Your task to perform on an android device: Empty the shopping cart on amazon.com. Add "macbook air" to the cart on amazon.com, then select checkout. Image 0: 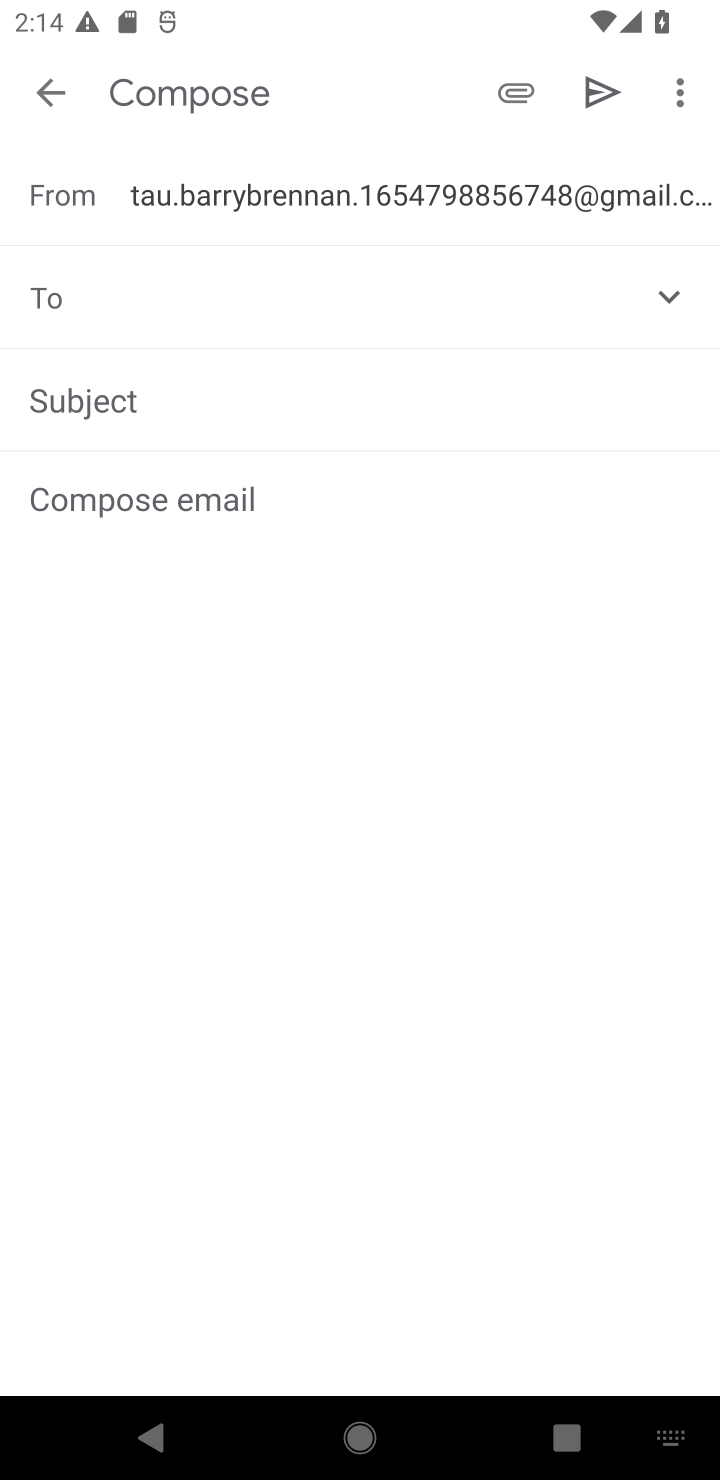
Step 0: press home button
Your task to perform on an android device: Empty the shopping cart on amazon.com. Add "macbook air" to the cart on amazon.com, then select checkout. Image 1: 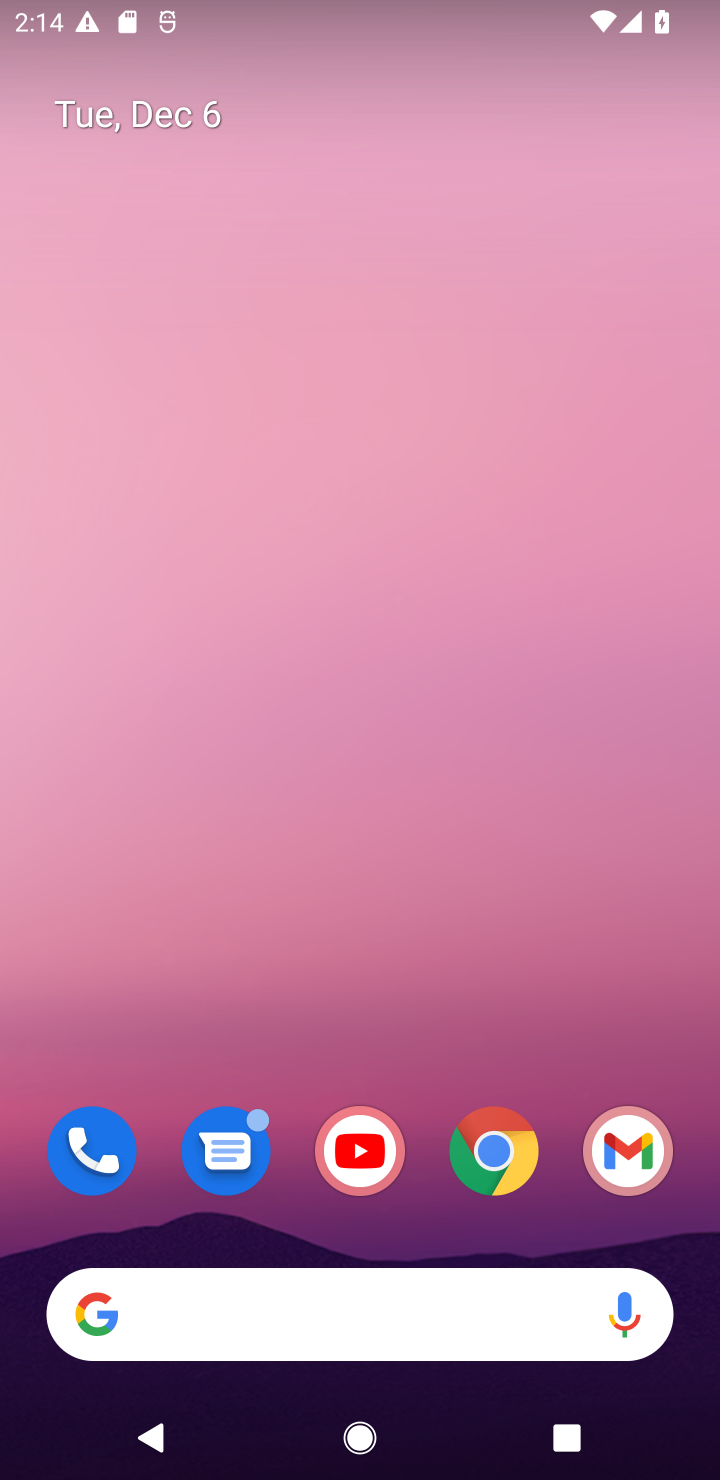
Step 1: click (514, 1159)
Your task to perform on an android device: Empty the shopping cart on amazon.com. Add "macbook air" to the cart on amazon.com, then select checkout. Image 2: 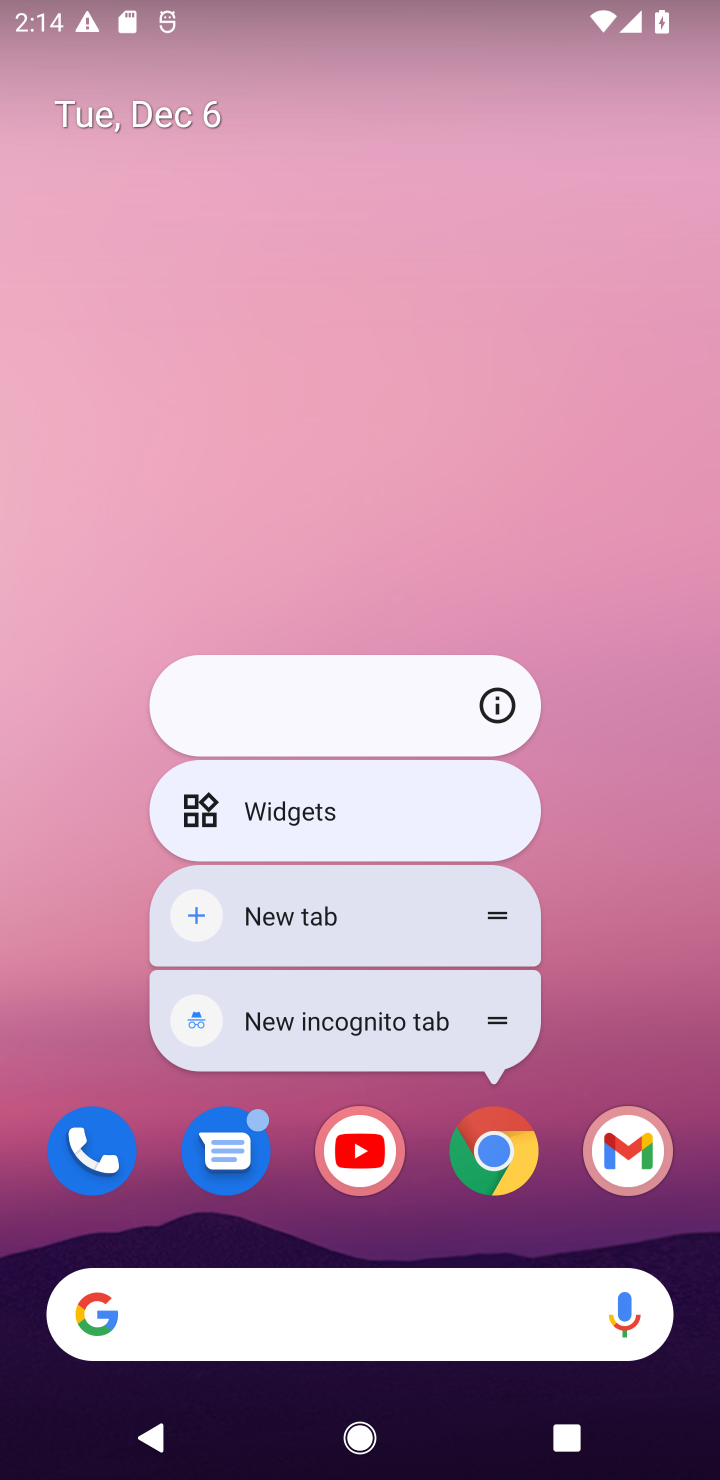
Step 2: click (504, 1168)
Your task to perform on an android device: Empty the shopping cart on amazon.com. Add "macbook air" to the cart on amazon.com, then select checkout. Image 3: 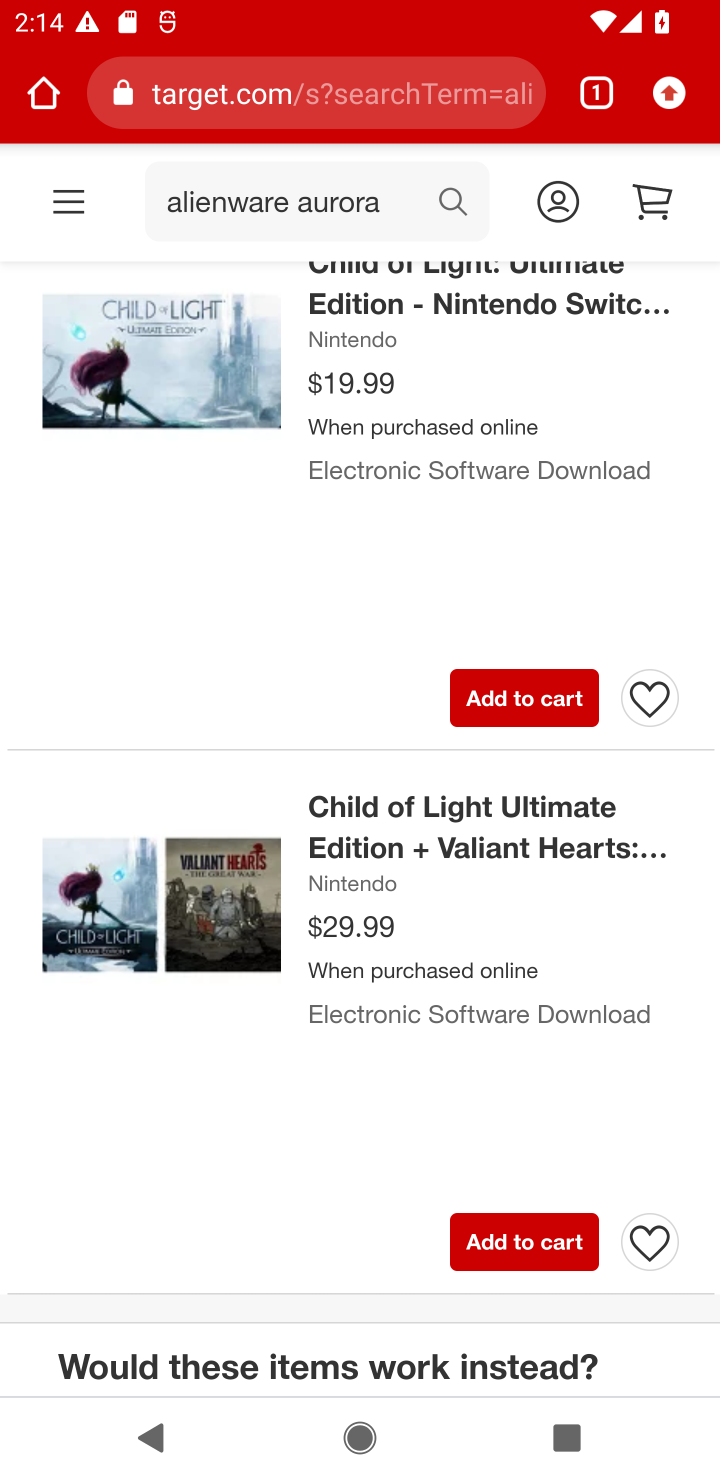
Step 3: click (295, 107)
Your task to perform on an android device: Empty the shopping cart on amazon.com. Add "macbook air" to the cart on amazon.com, then select checkout. Image 4: 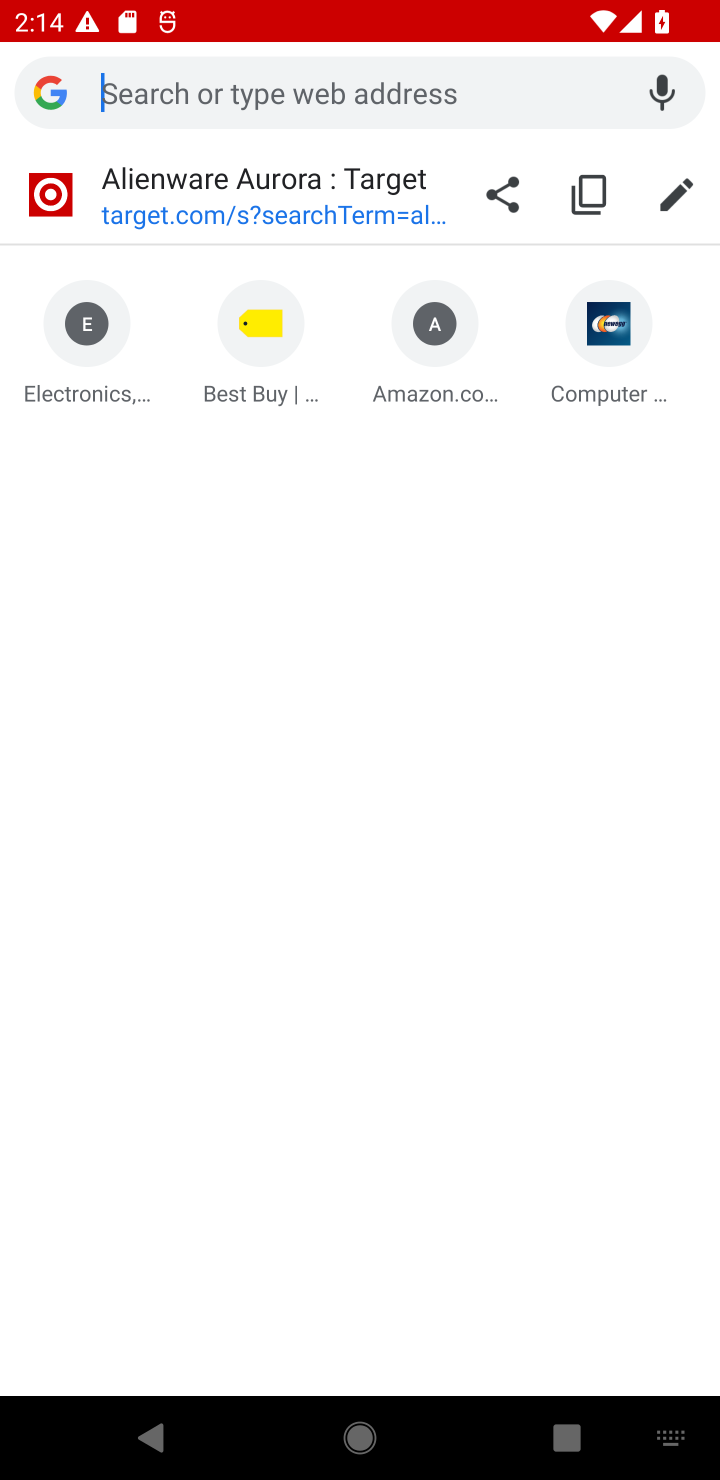
Step 4: click (397, 368)
Your task to perform on an android device: Empty the shopping cart on amazon.com. Add "macbook air" to the cart on amazon.com, then select checkout. Image 5: 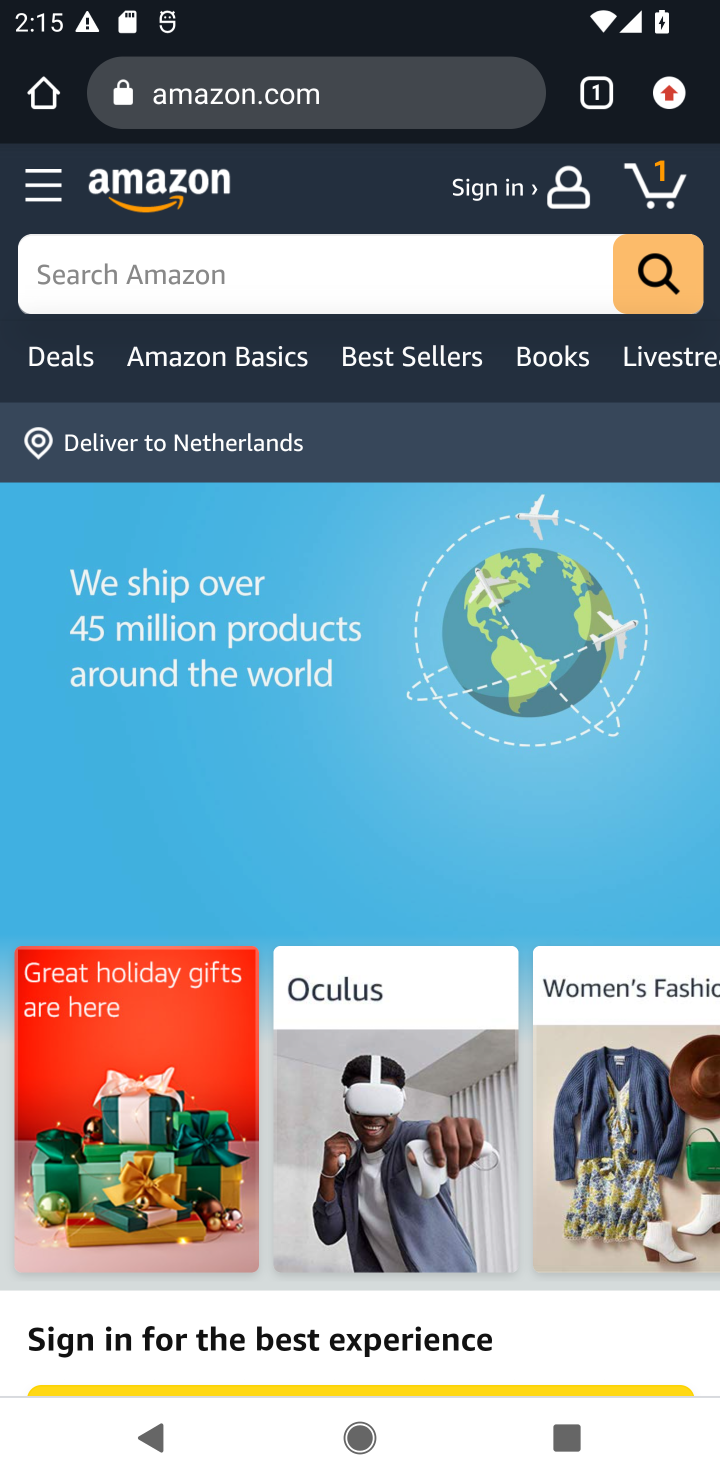
Step 5: click (647, 183)
Your task to perform on an android device: Empty the shopping cart on amazon.com. Add "macbook air" to the cart on amazon.com, then select checkout. Image 6: 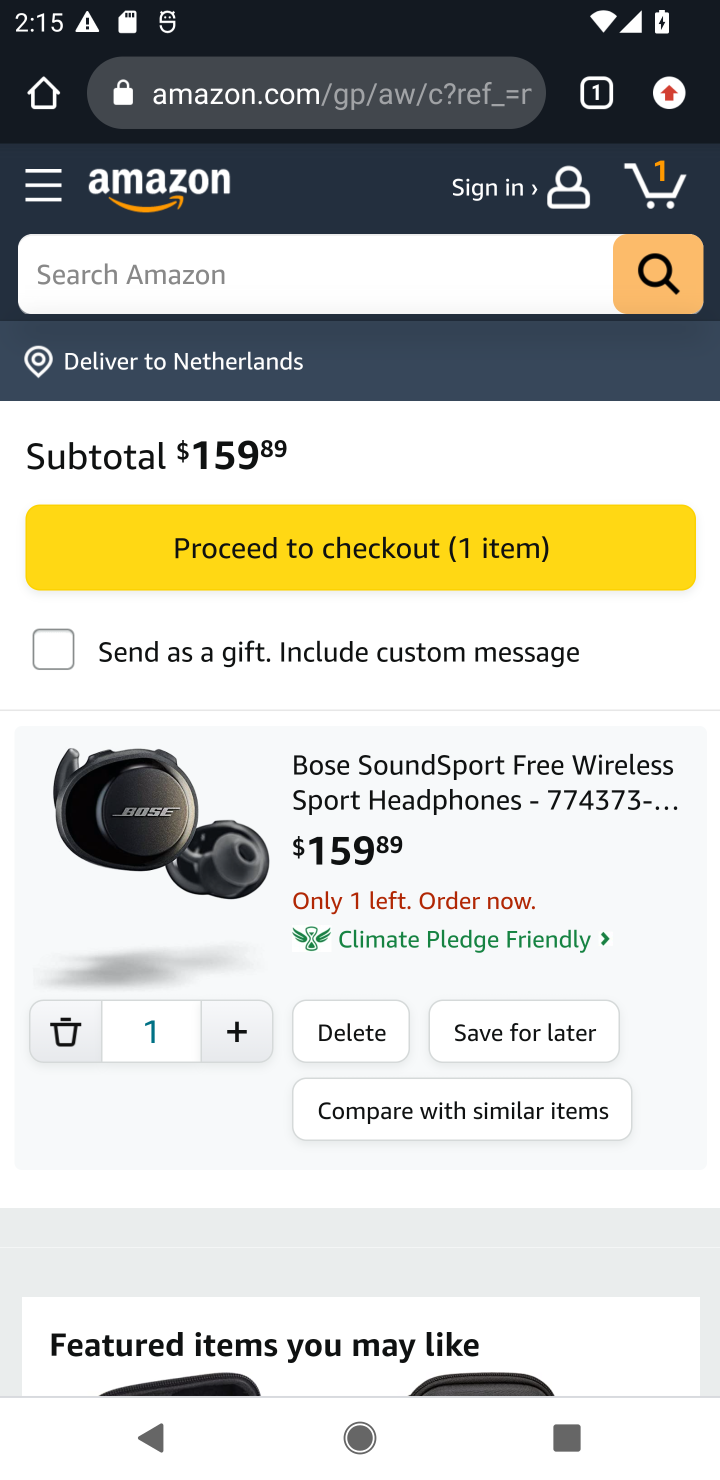
Step 6: click (346, 1033)
Your task to perform on an android device: Empty the shopping cart on amazon.com. Add "macbook air" to the cart on amazon.com, then select checkout. Image 7: 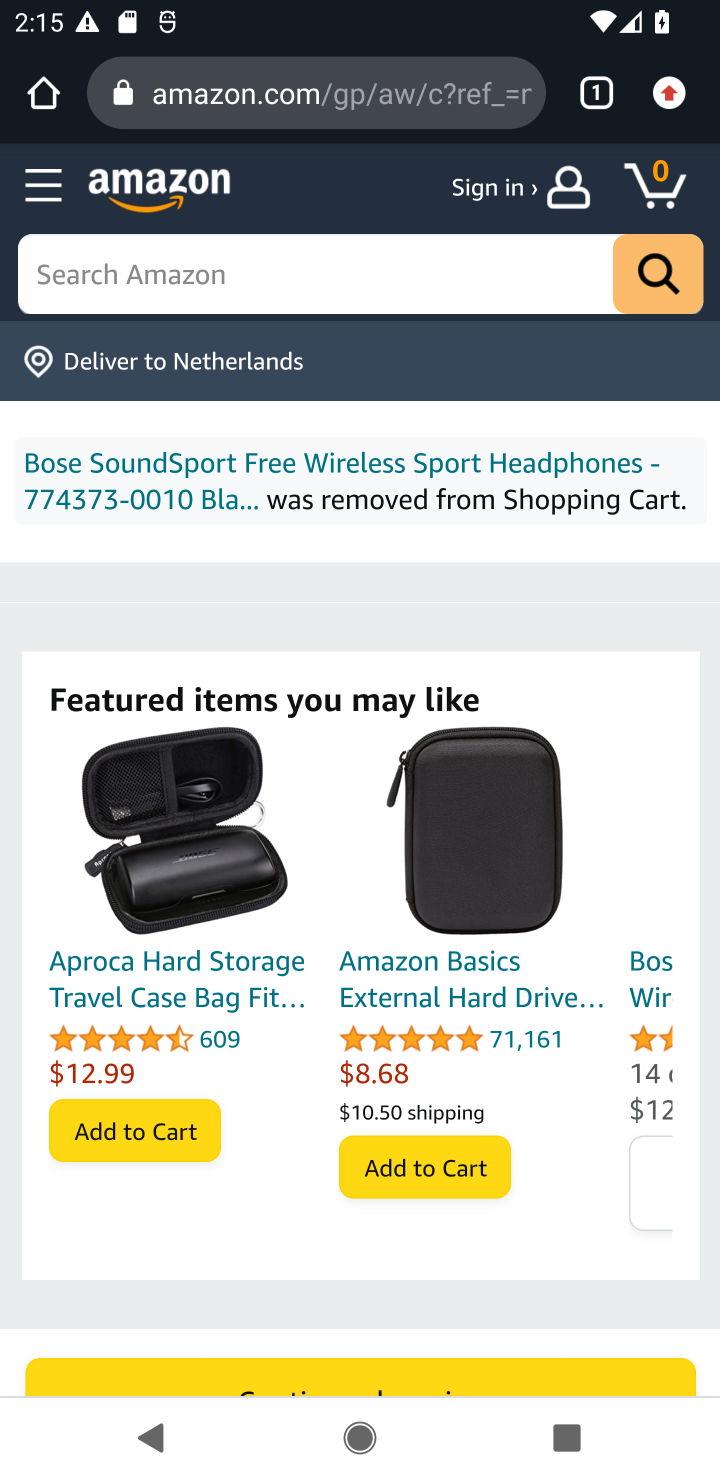
Step 7: click (102, 292)
Your task to perform on an android device: Empty the shopping cart on amazon.com. Add "macbook air" to the cart on amazon.com, then select checkout. Image 8: 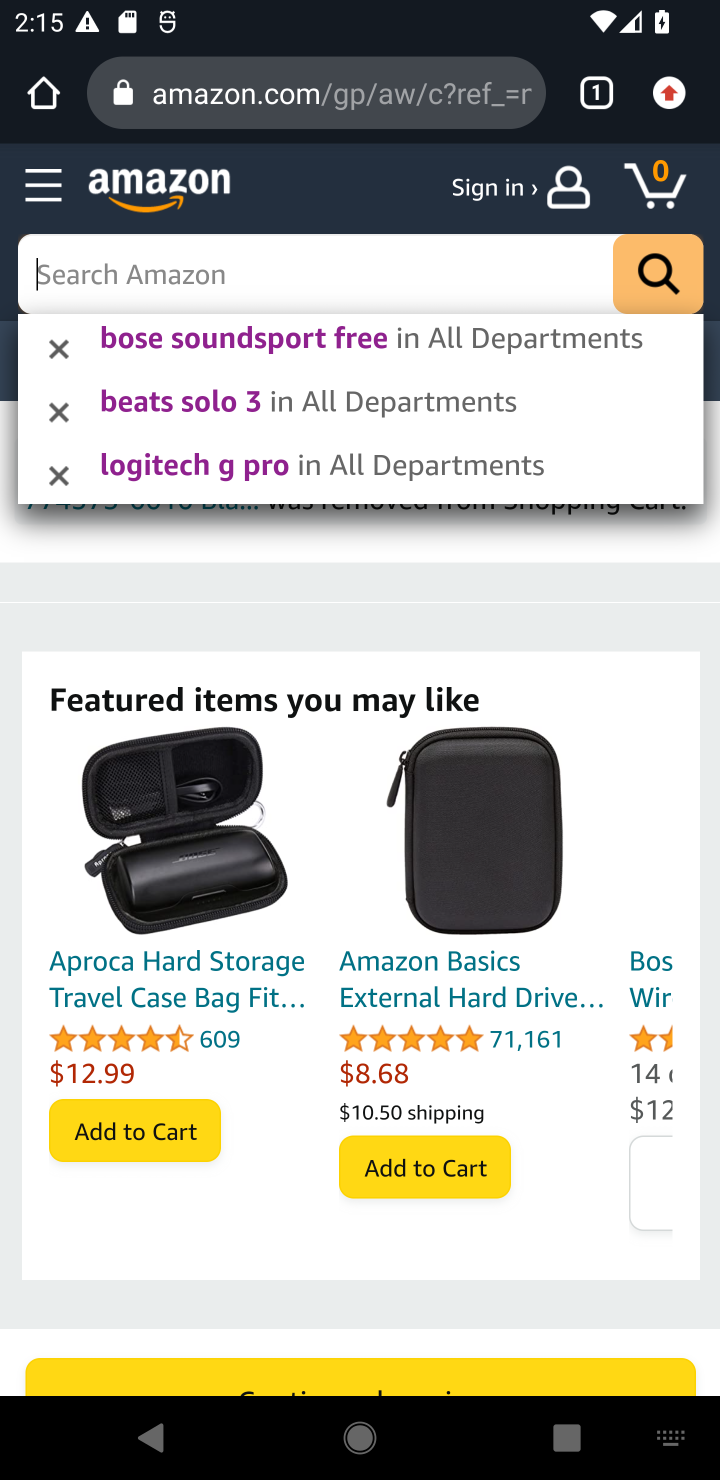
Step 8: type "macbook air"
Your task to perform on an android device: Empty the shopping cart on amazon.com. Add "macbook air" to the cart on amazon.com, then select checkout. Image 9: 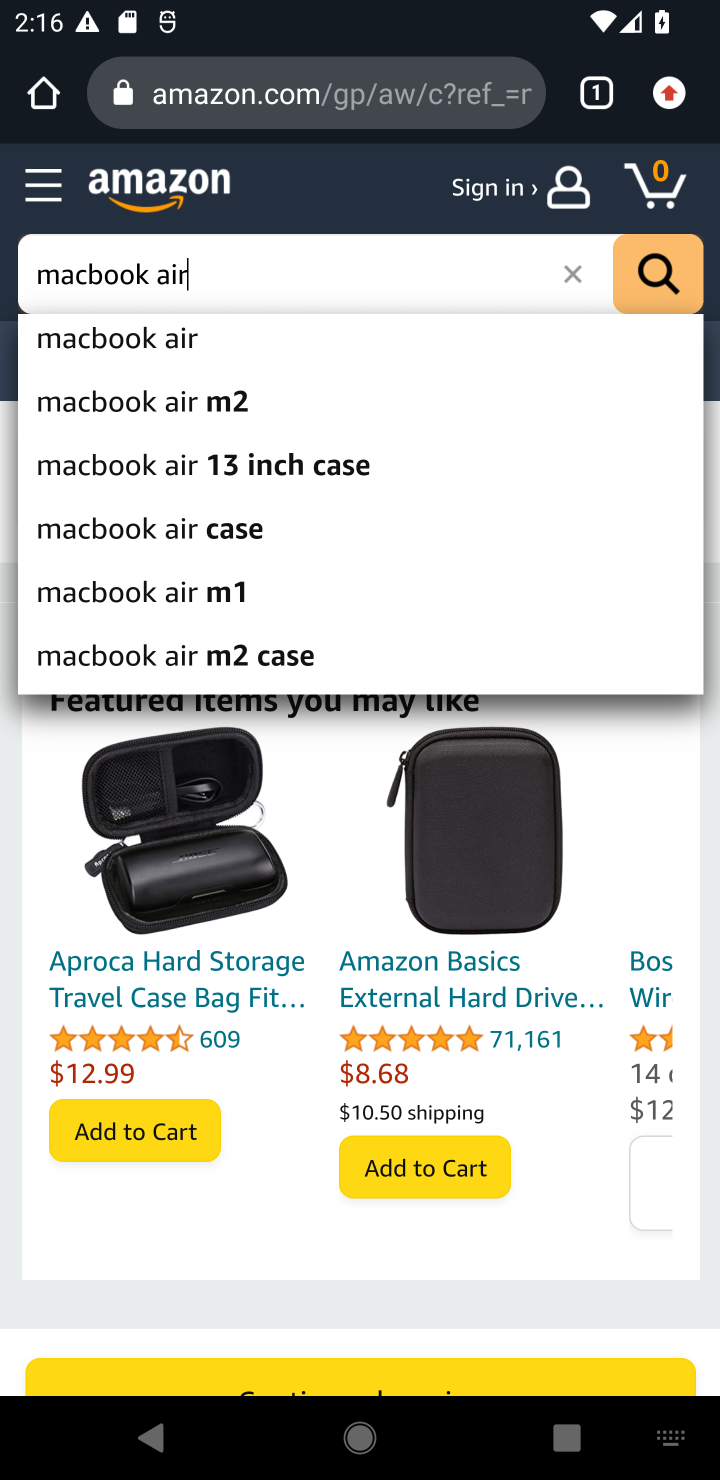
Step 9: click (162, 346)
Your task to perform on an android device: Empty the shopping cart on amazon.com. Add "macbook air" to the cart on amazon.com, then select checkout. Image 10: 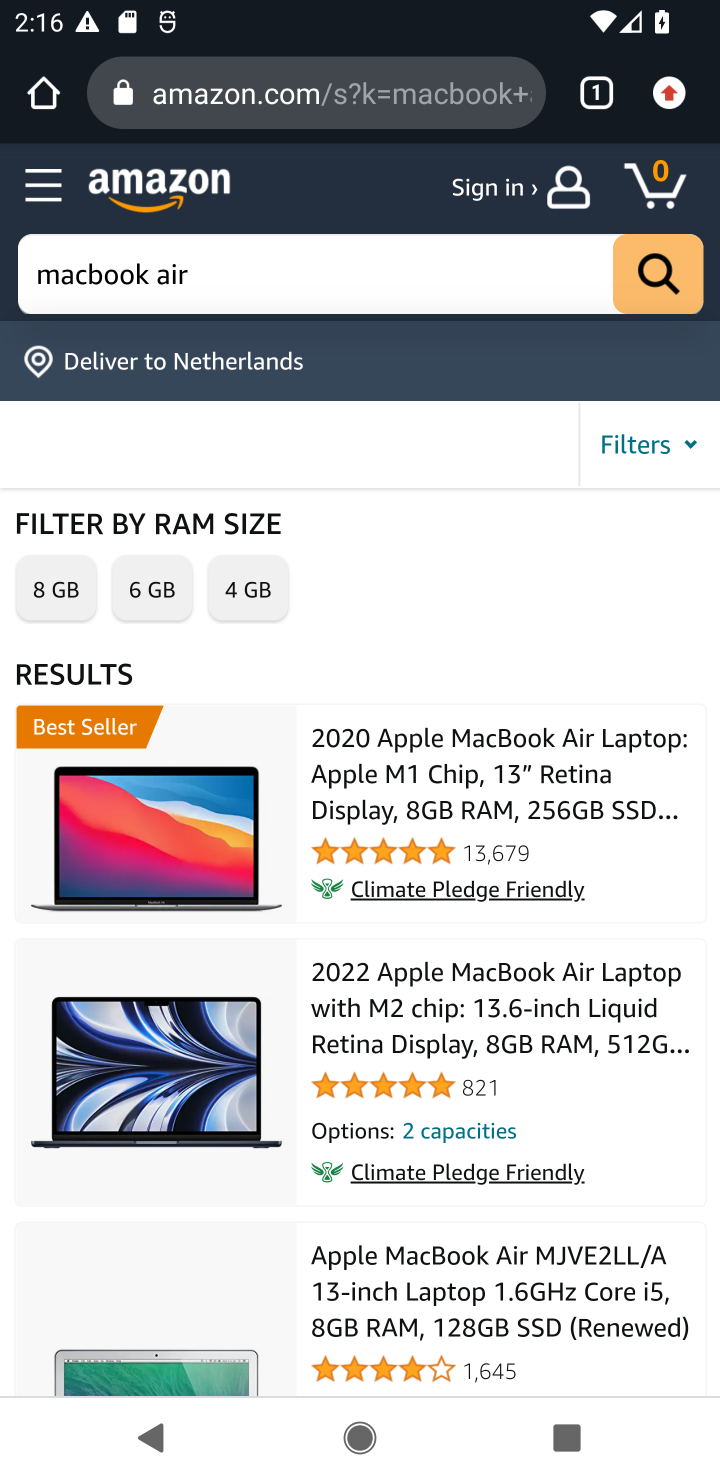
Step 10: drag from (296, 1207) to (302, 530)
Your task to perform on an android device: Empty the shopping cart on amazon.com. Add "macbook air" to the cart on amazon.com, then select checkout. Image 11: 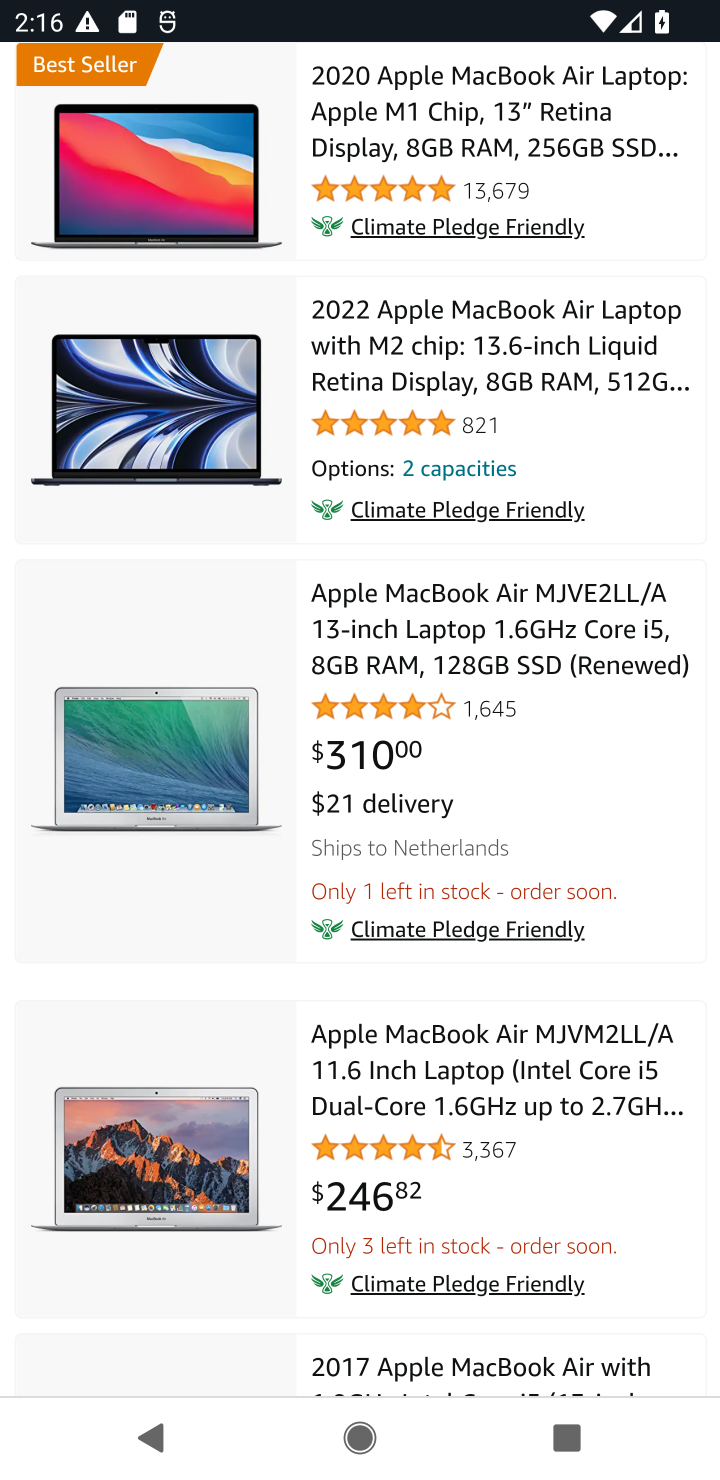
Step 11: click (463, 677)
Your task to perform on an android device: Empty the shopping cart on amazon.com. Add "macbook air" to the cart on amazon.com, then select checkout. Image 12: 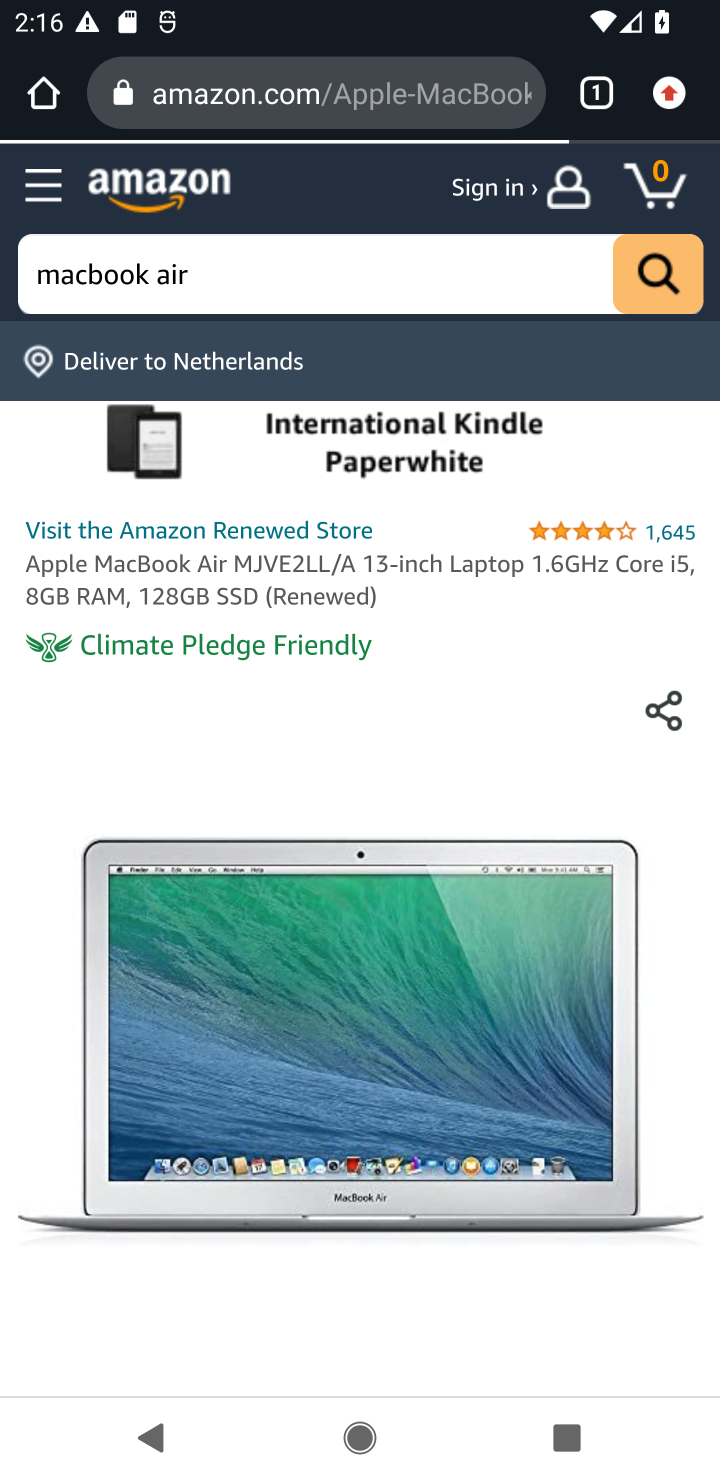
Step 12: drag from (462, 721) to (413, 307)
Your task to perform on an android device: Empty the shopping cart on amazon.com. Add "macbook air" to the cart on amazon.com, then select checkout. Image 13: 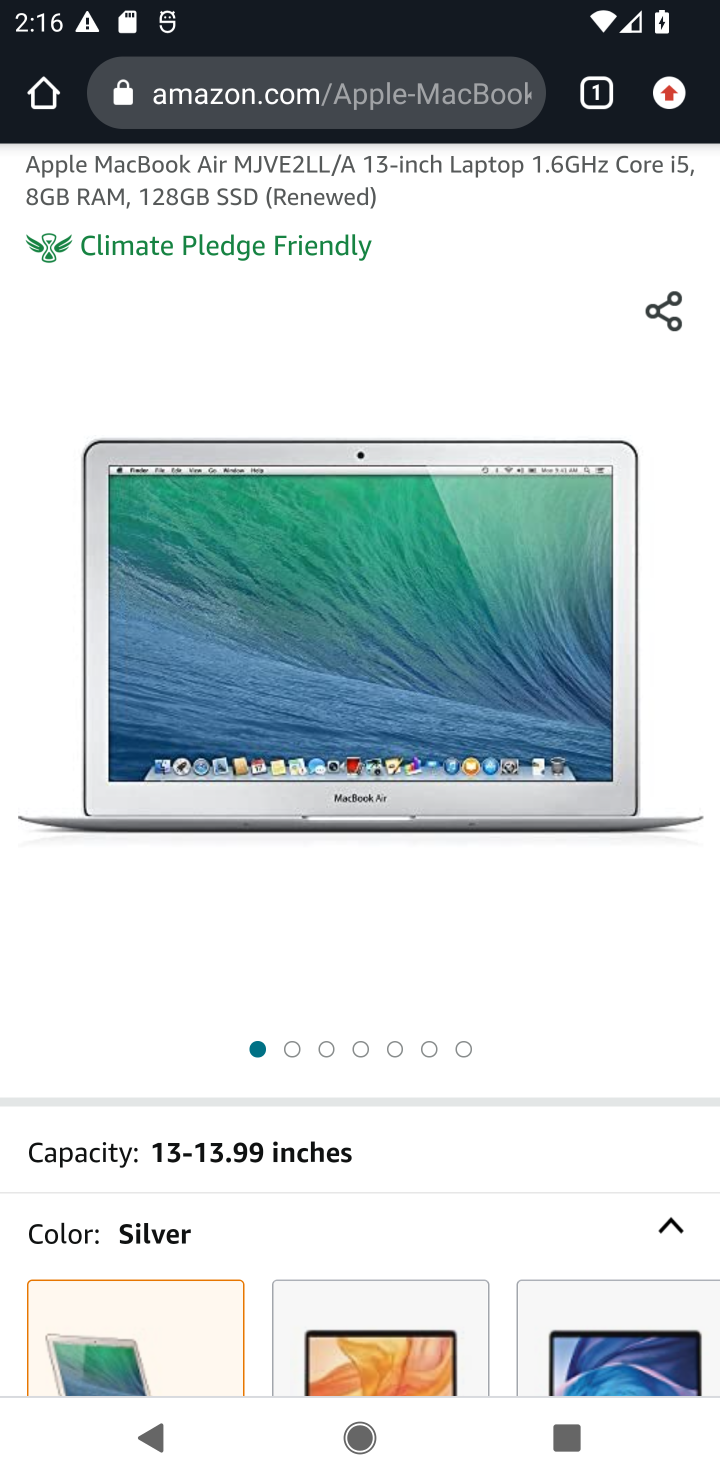
Step 13: drag from (390, 965) to (380, 341)
Your task to perform on an android device: Empty the shopping cart on amazon.com. Add "macbook air" to the cart on amazon.com, then select checkout. Image 14: 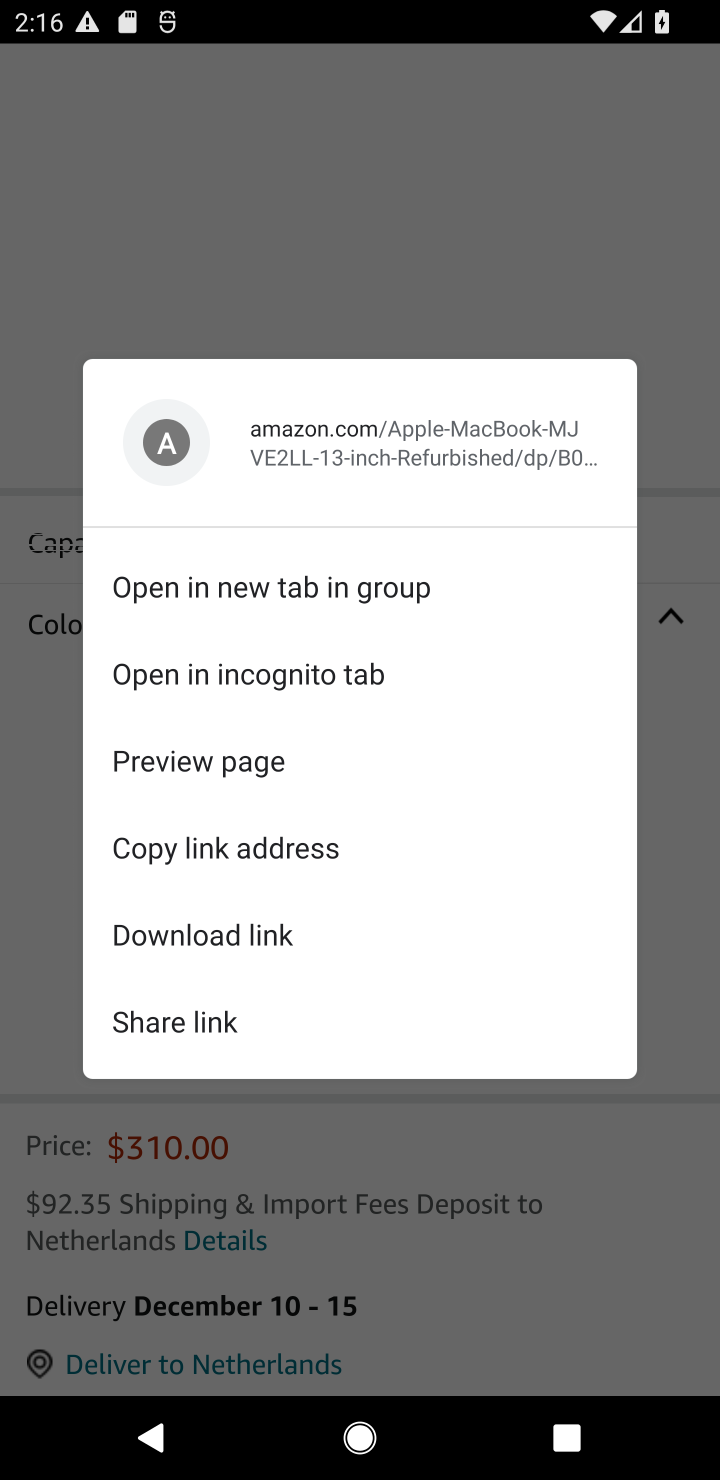
Step 14: click (696, 657)
Your task to perform on an android device: Empty the shopping cart on amazon.com. Add "macbook air" to the cart on amazon.com, then select checkout. Image 15: 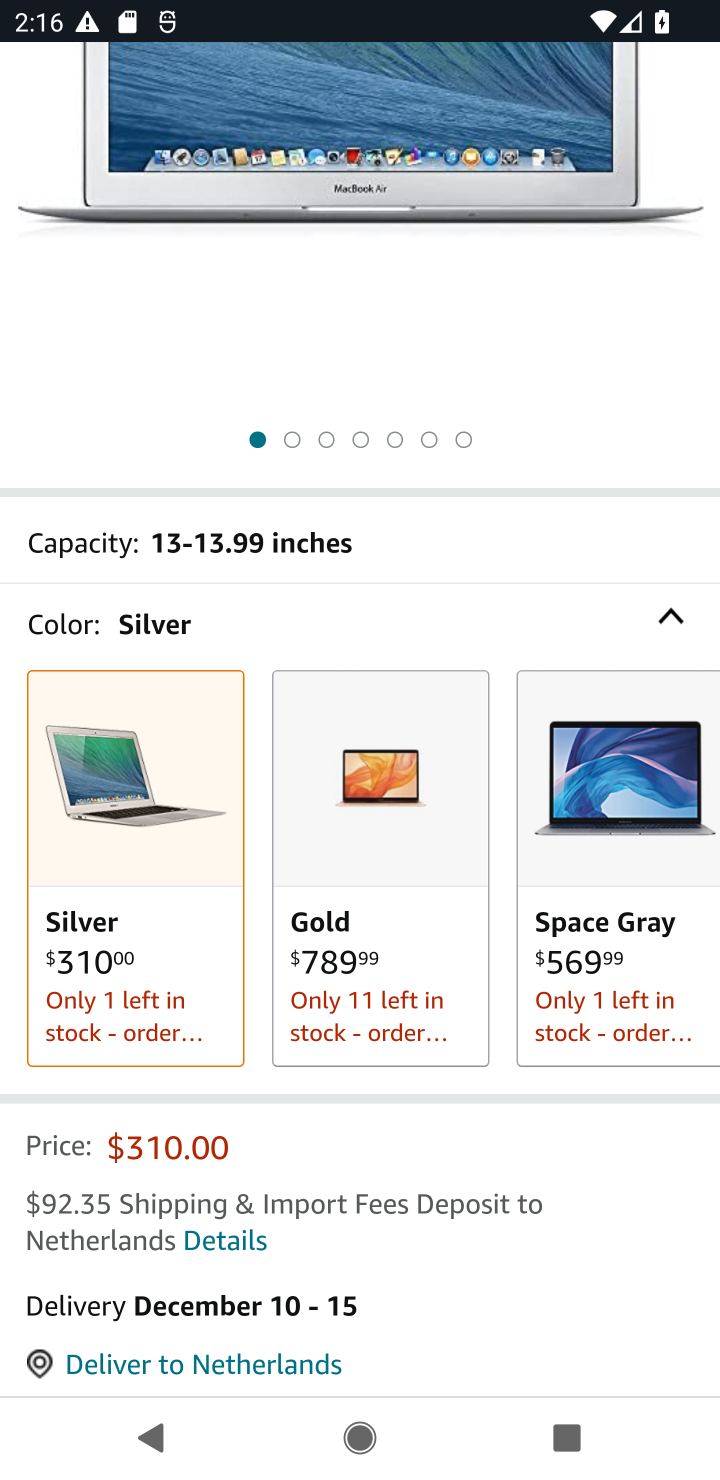
Step 15: drag from (352, 924) to (352, 392)
Your task to perform on an android device: Empty the shopping cart on amazon.com. Add "macbook air" to the cart on amazon.com, then select checkout. Image 16: 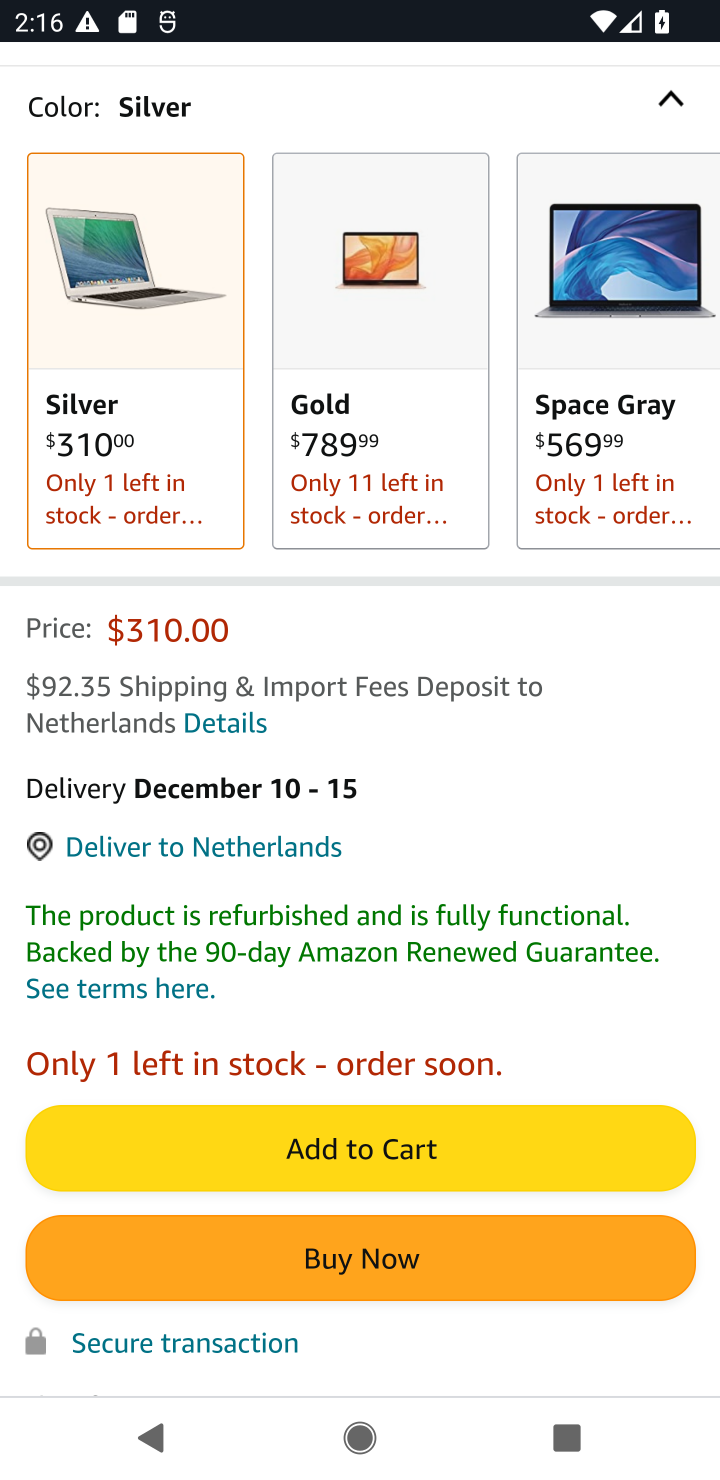
Step 16: click (334, 1147)
Your task to perform on an android device: Empty the shopping cart on amazon.com. Add "macbook air" to the cart on amazon.com, then select checkout. Image 17: 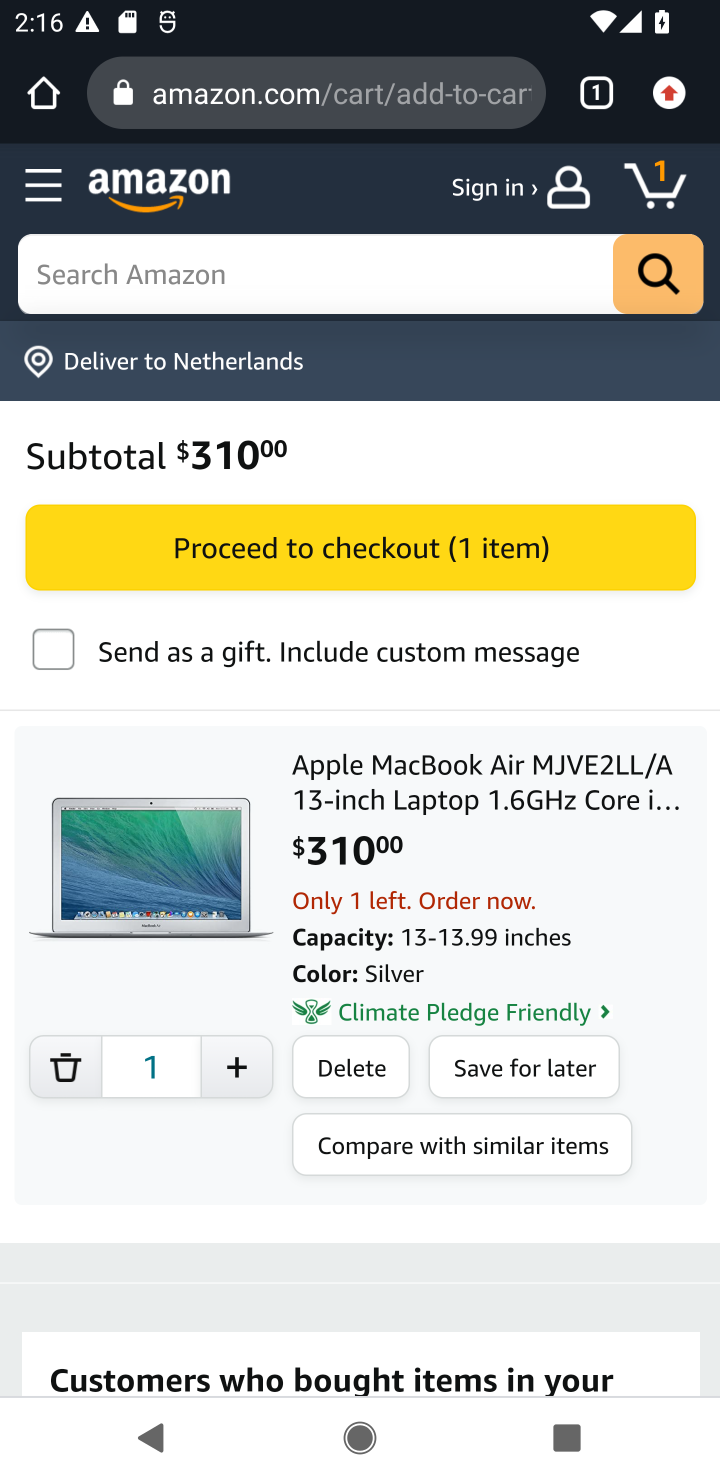
Step 17: click (331, 561)
Your task to perform on an android device: Empty the shopping cart on amazon.com. Add "macbook air" to the cart on amazon.com, then select checkout. Image 18: 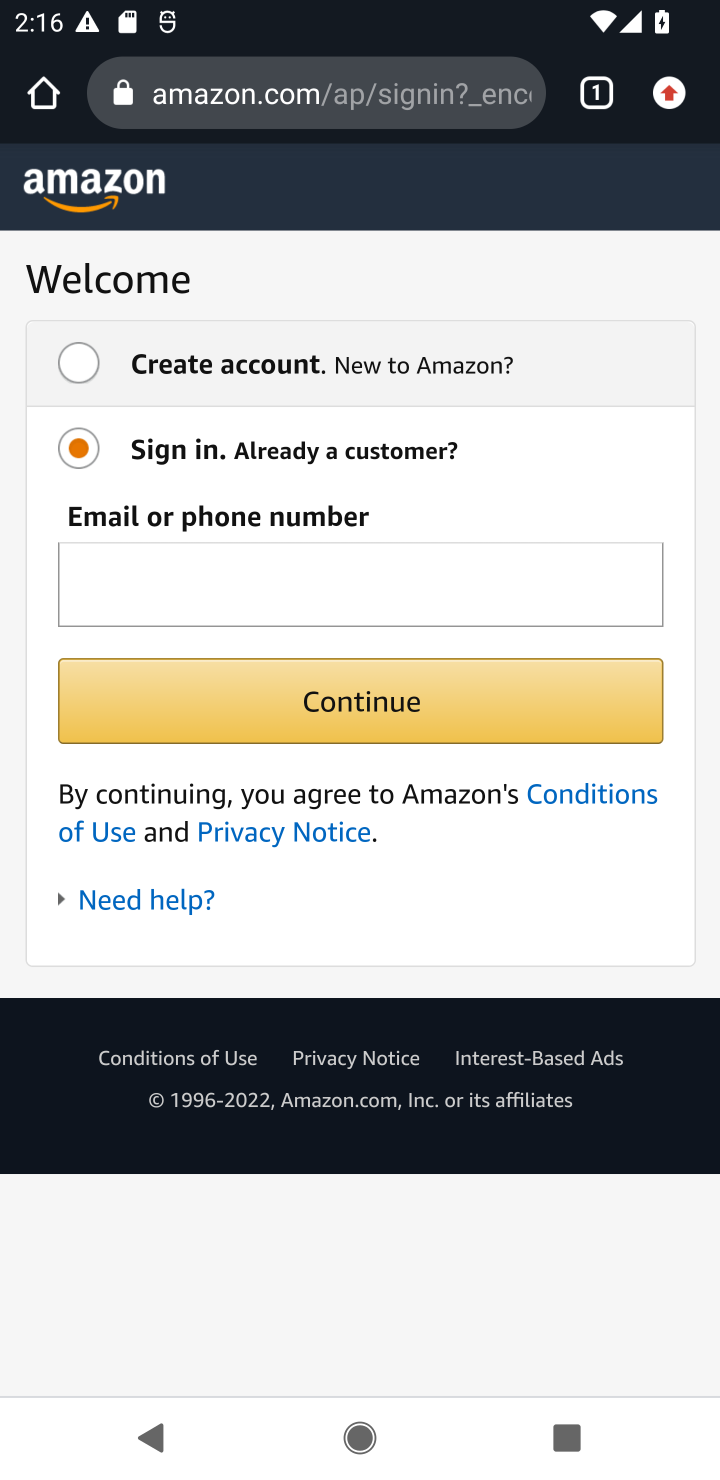
Step 18: task complete